Your task to perform on an android device: turn on the 12-hour format for clock Image 0: 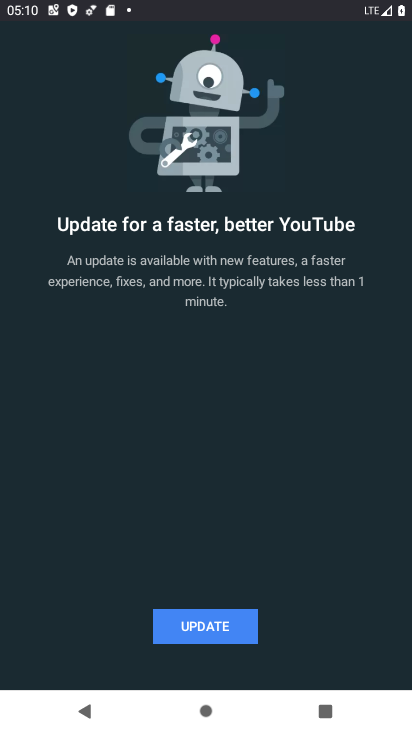
Step 0: press back button
Your task to perform on an android device: turn on the 12-hour format for clock Image 1: 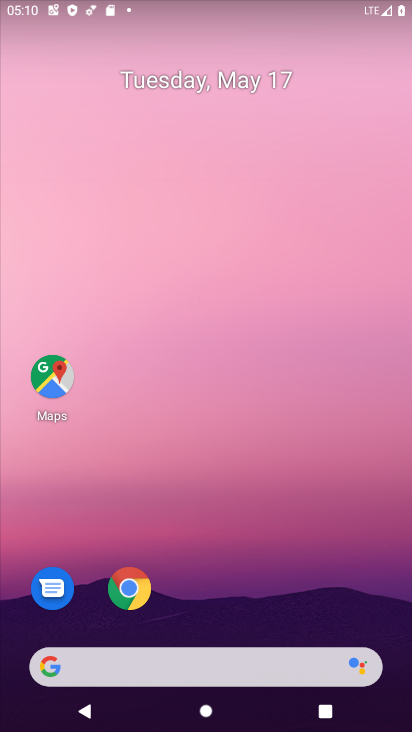
Step 1: drag from (272, 568) to (244, 150)
Your task to perform on an android device: turn on the 12-hour format for clock Image 2: 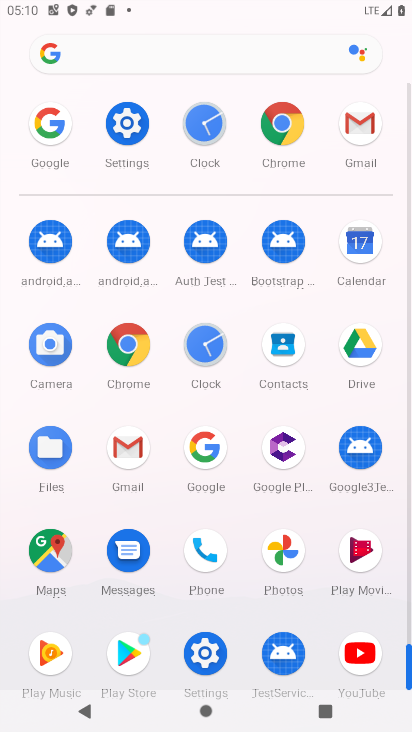
Step 2: click (205, 344)
Your task to perform on an android device: turn on the 12-hour format for clock Image 3: 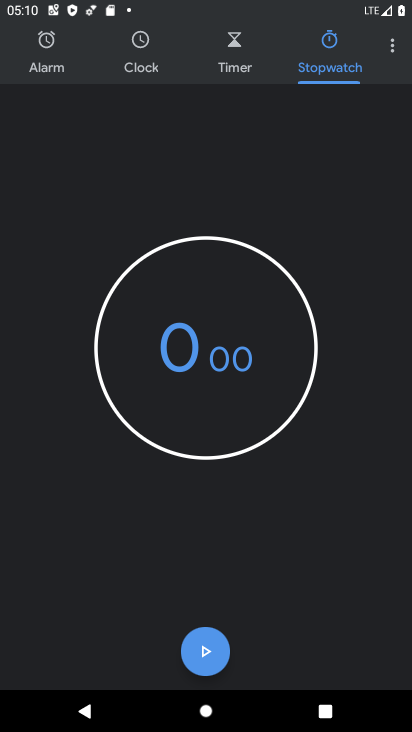
Step 3: click (394, 43)
Your task to perform on an android device: turn on the 12-hour format for clock Image 4: 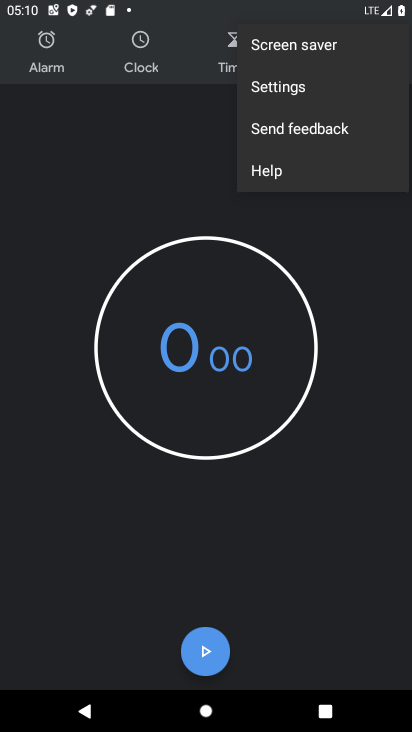
Step 4: click (295, 90)
Your task to perform on an android device: turn on the 12-hour format for clock Image 5: 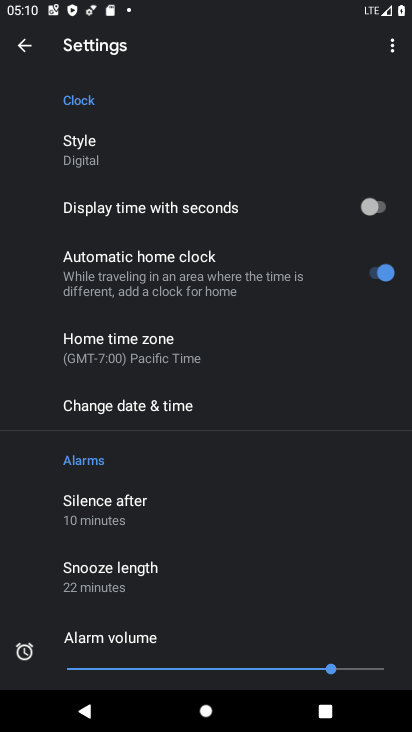
Step 5: click (186, 407)
Your task to perform on an android device: turn on the 12-hour format for clock Image 6: 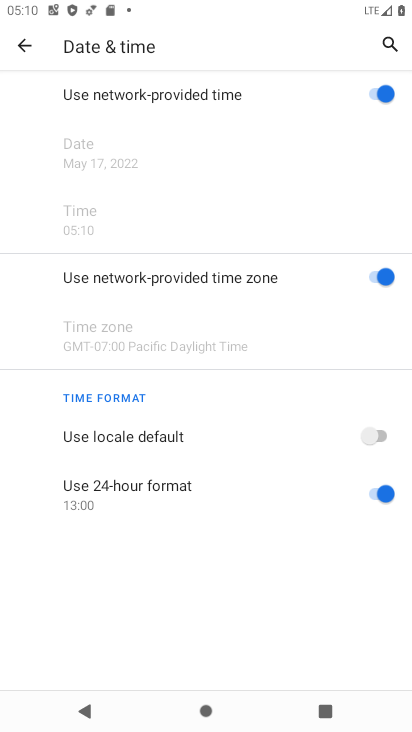
Step 6: click (363, 431)
Your task to perform on an android device: turn on the 12-hour format for clock Image 7: 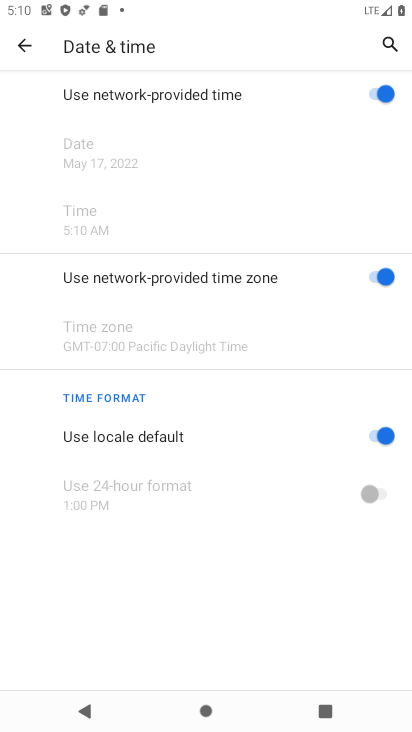
Step 7: task complete